Your task to perform on an android device: toggle javascript in the chrome app Image 0: 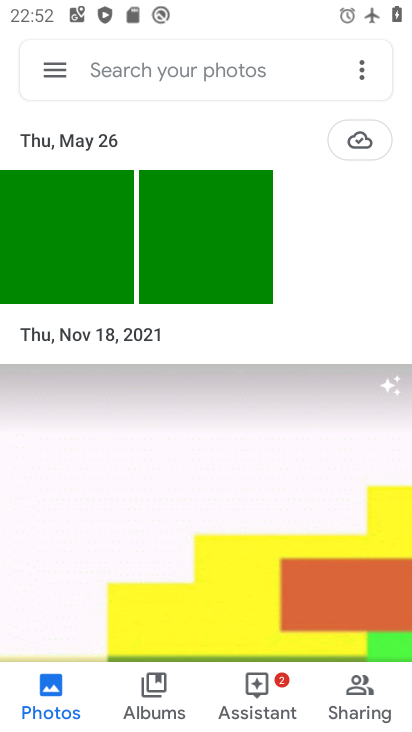
Step 0: press home button
Your task to perform on an android device: toggle javascript in the chrome app Image 1: 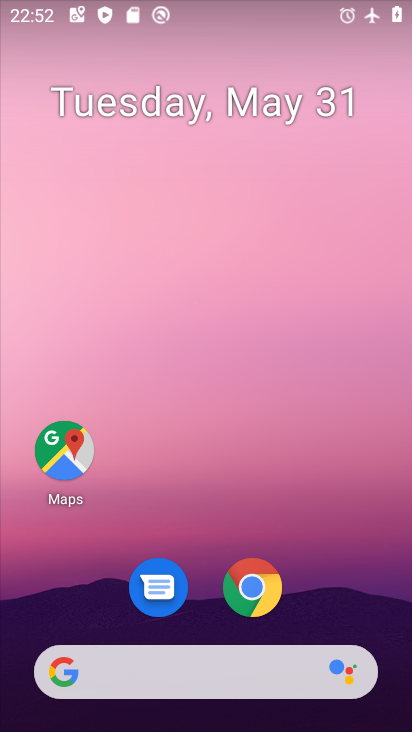
Step 1: drag from (368, 583) to (368, 173)
Your task to perform on an android device: toggle javascript in the chrome app Image 2: 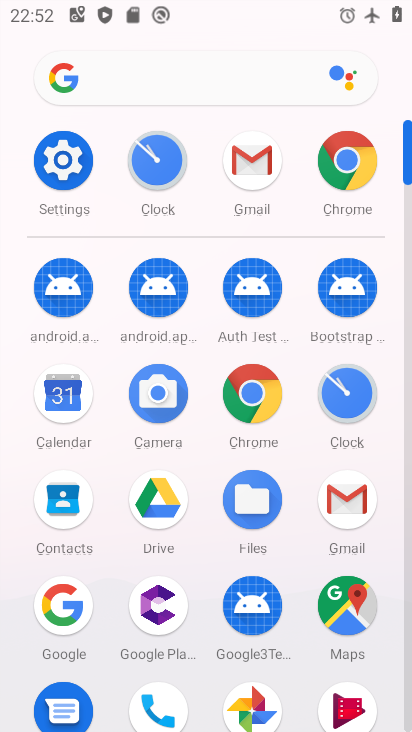
Step 2: drag from (297, 558) to (301, 233)
Your task to perform on an android device: toggle javascript in the chrome app Image 3: 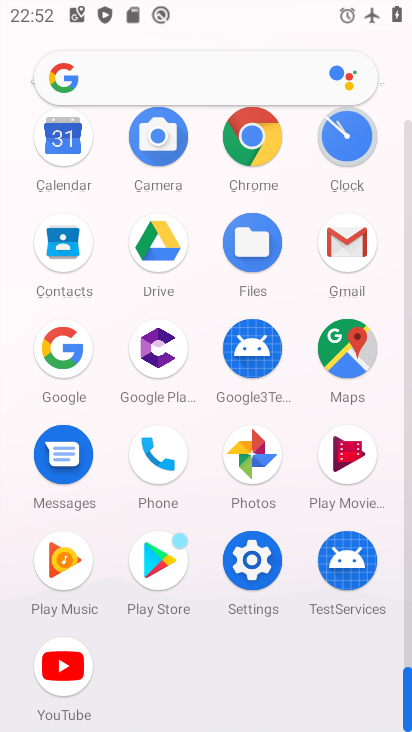
Step 3: drag from (302, 192) to (296, 426)
Your task to perform on an android device: toggle javascript in the chrome app Image 4: 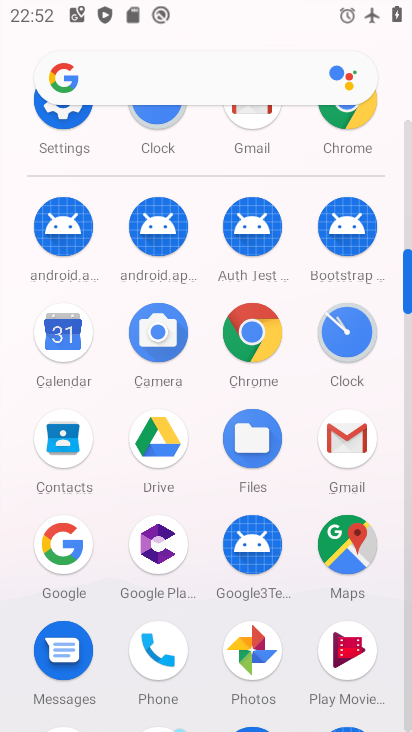
Step 4: drag from (296, 143) to (288, 350)
Your task to perform on an android device: toggle javascript in the chrome app Image 5: 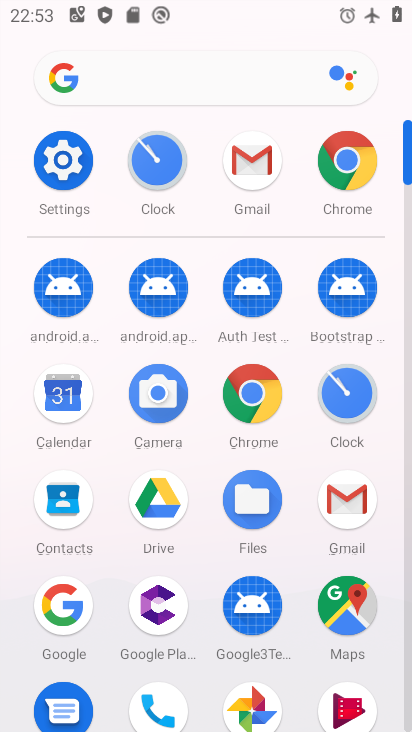
Step 5: drag from (296, 456) to (300, 245)
Your task to perform on an android device: toggle javascript in the chrome app Image 6: 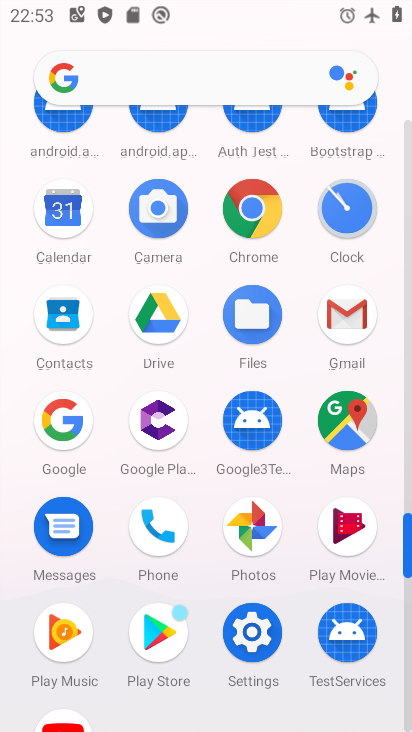
Step 6: drag from (291, 523) to (306, 323)
Your task to perform on an android device: toggle javascript in the chrome app Image 7: 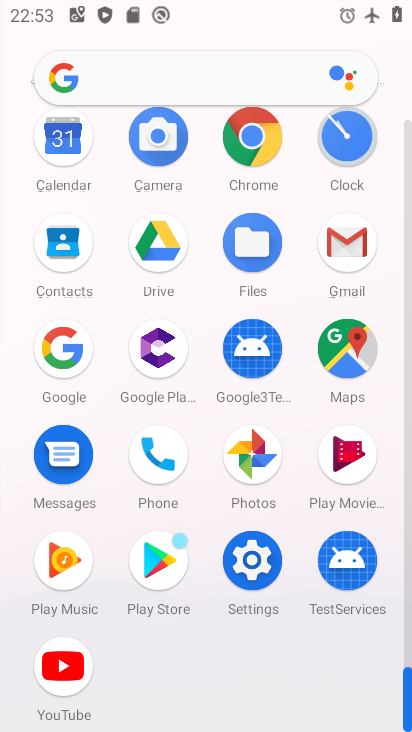
Step 7: drag from (301, 178) to (288, 350)
Your task to perform on an android device: toggle javascript in the chrome app Image 8: 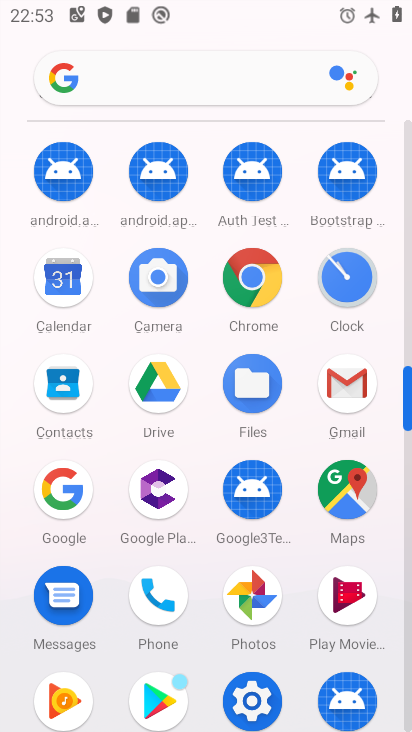
Step 8: drag from (297, 189) to (288, 383)
Your task to perform on an android device: toggle javascript in the chrome app Image 9: 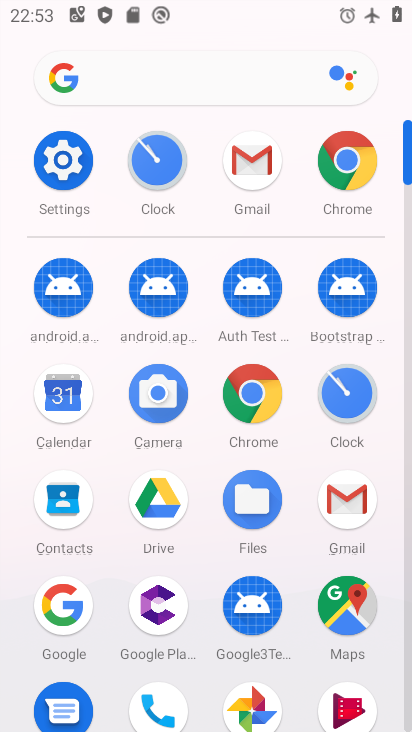
Step 9: drag from (296, 143) to (291, 307)
Your task to perform on an android device: toggle javascript in the chrome app Image 10: 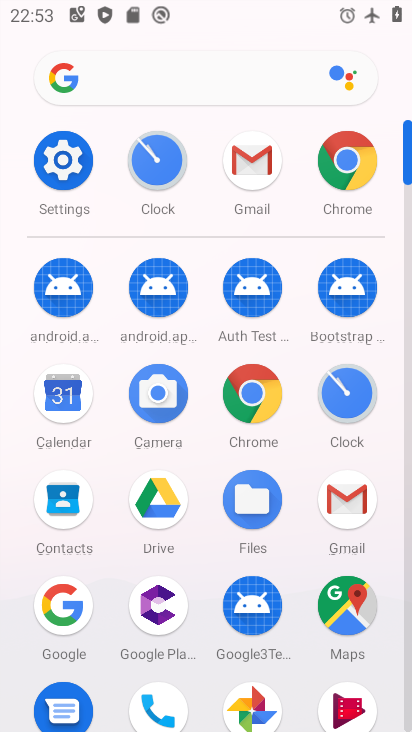
Step 10: drag from (292, 385) to (300, 194)
Your task to perform on an android device: toggle javascript in the chrome app Image 11: 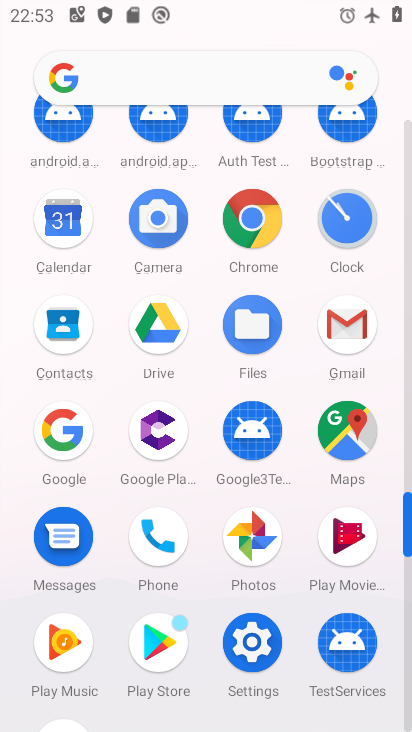
Step 11: click (256, 225)
Your task to perform on an android device: toggle javascript in the chrome app Image 12: 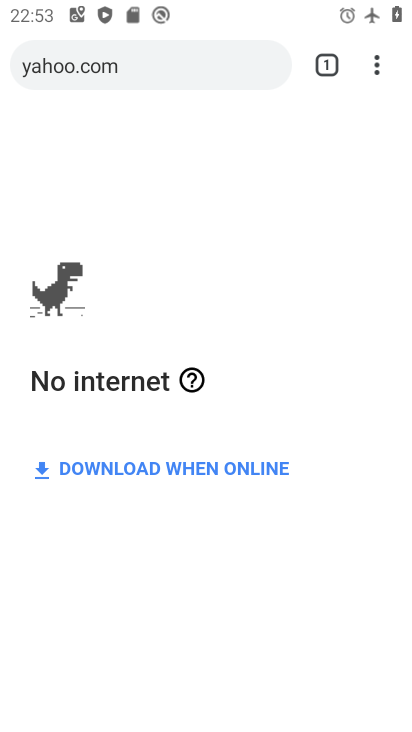
Step 12: click (379, 67)
Your task to perform on an android device: toggle javascript in the chrome app Image 13: 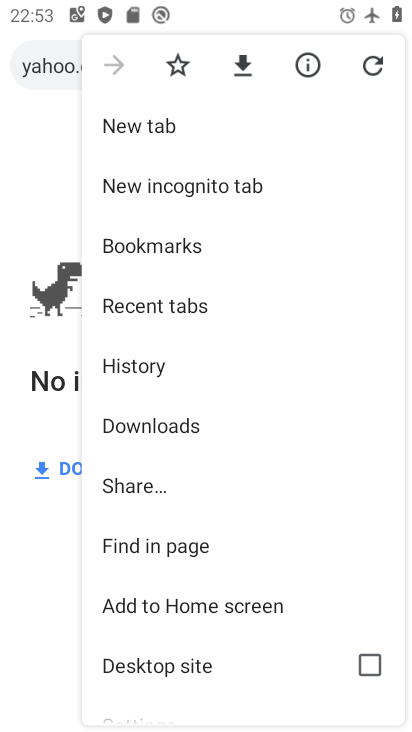
Step 13: drag from (289, 445) to (310, 272)
Your task to perform on an android device: toggle javascript in the chrome app Image 14: 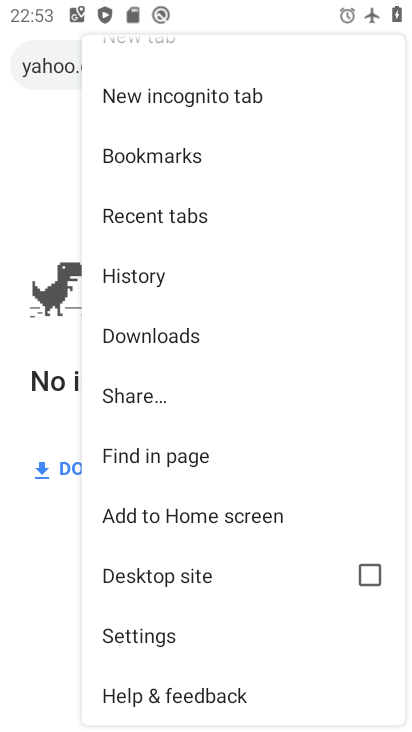
Step 14: drag from (274, 566) to (303, 333)
Your task to perform on an android device: toggle javascript in the chrome app Image 15: 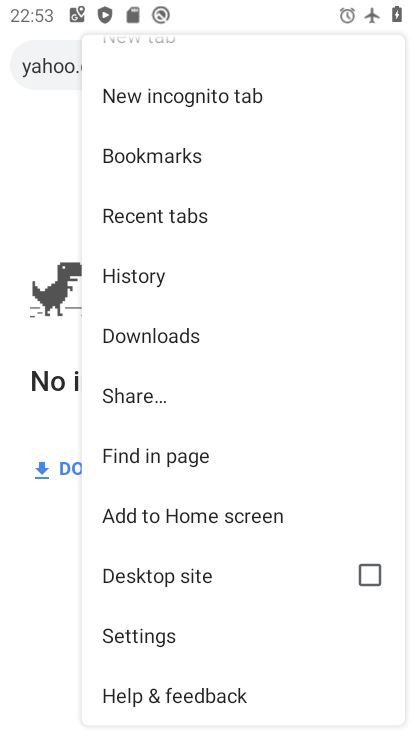
Step 15: click (162, 643)
Your task to perform on an android device: toggle javascript in the chrome app Image 16: 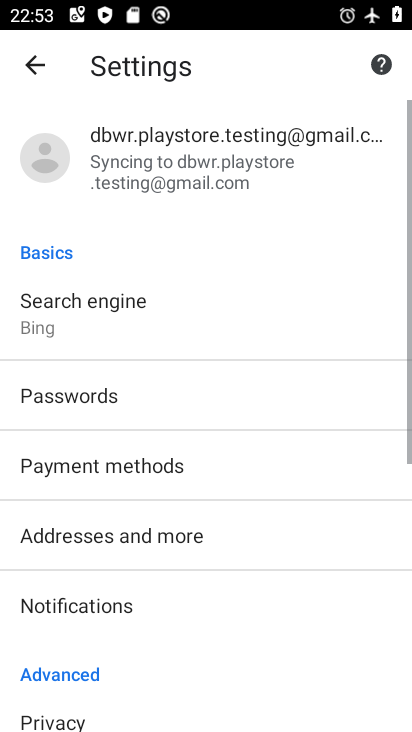
Step 16: drag from (317, 513) to (337, 372)
Your task to perform on an android device: toggle javascript in the chrome app Image 17: 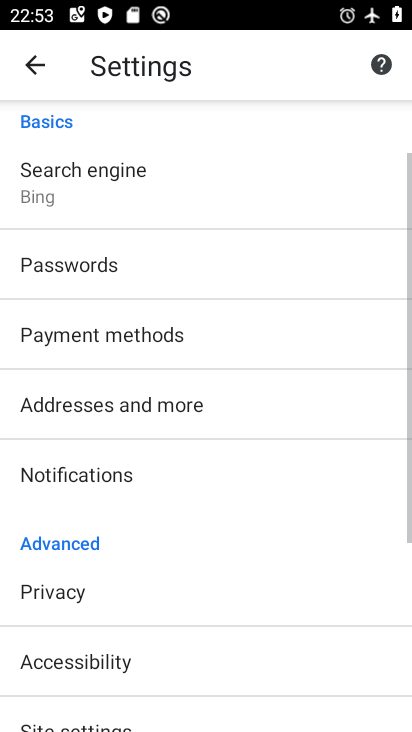
Step 17: drag from (315, 569) to (335, 351)
Your task to perform on an android device: toggle javascript in the chrome app Image 18: 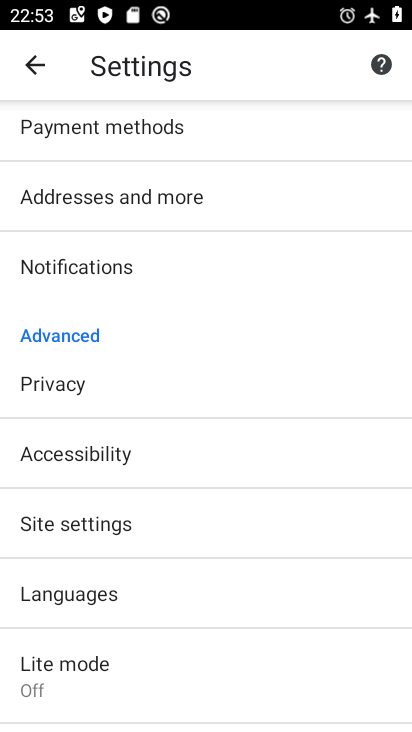
Step 18: drag from (292, 588) to (294, 401)
Your task to perform on an android device: toggle javascript in the chrome app Image 19: 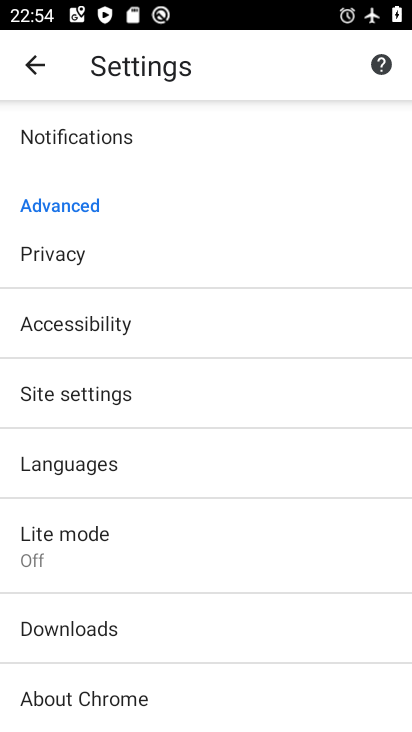
Step 19: drag from (303, 547) to (301, 383)
Your task to perform on an android device: toggle javascript in the chrome app Image 20: 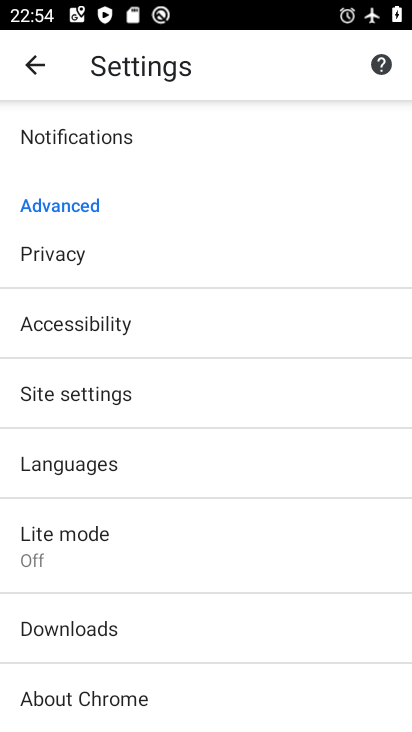
Step 20: drag from (301, 269) to (286, 483)
Your task to perform on an android device: toggle javascript in the chrome app Image 21: 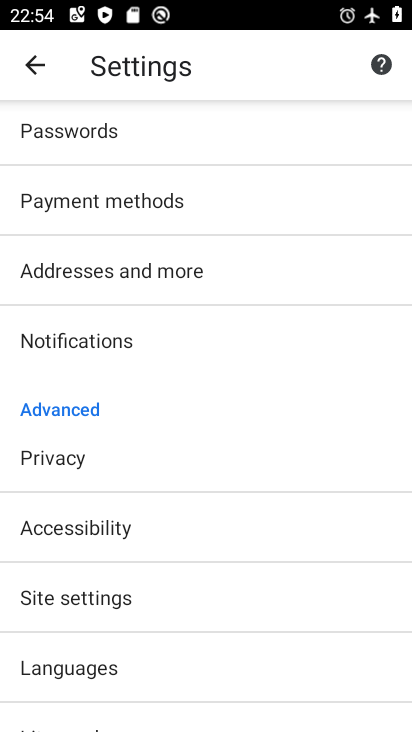
Step 21: drag from (302, 542) to (306, 303)
Your task to perform on an android device: toggle javascript in the chrome app Image 22: 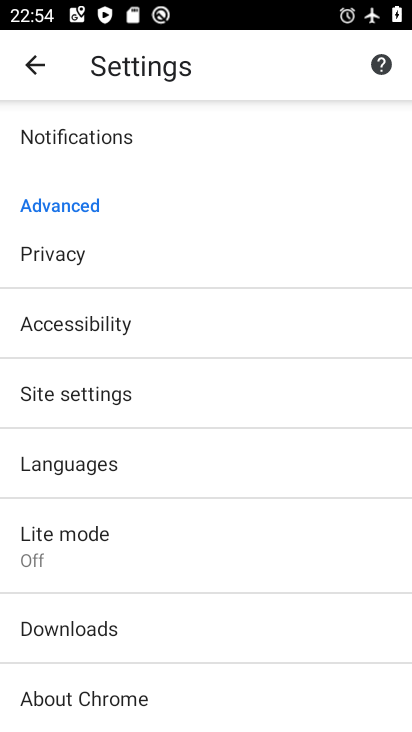
Step 22: click (176, 390)
Your task to perform on an android device: toggle javascript in the chrome app Image 23: 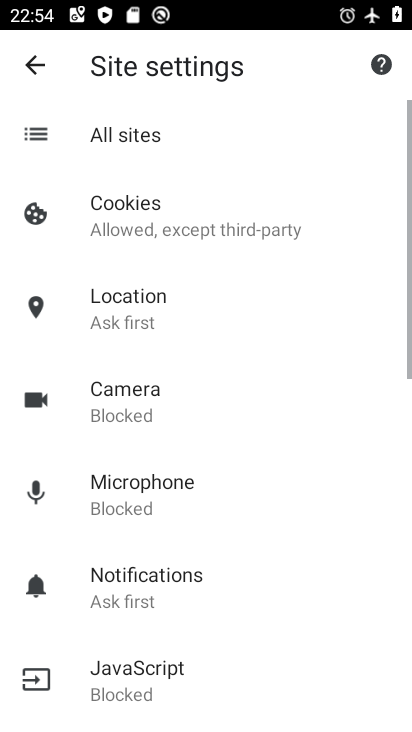
Step 23: drag from (257, 550) to (292, 331)
Your task to perform on an android device: toggle javascript in the chrome app Image 24: 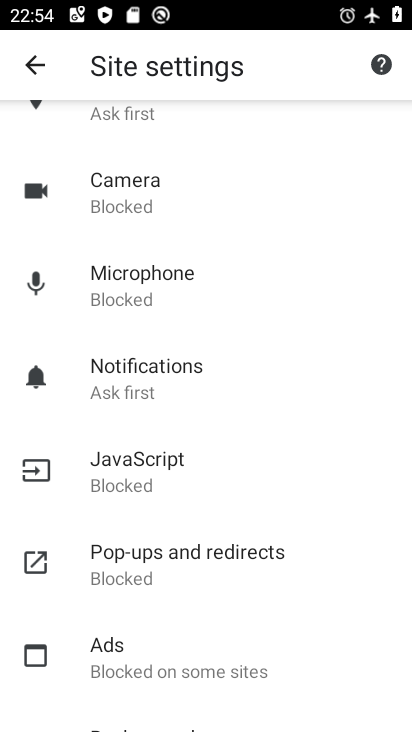
Step 24: drag from (297, 628) to (313, 398)
Your task to perform on an android device: toggle javascript in the chrome app Image 25: 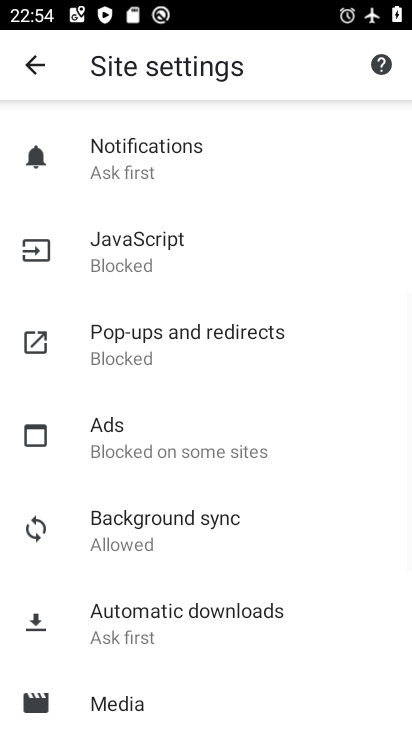
Step 25: drag from (318, 621) to (322, 358)
Your task to perform on an android device: toggle javascript in the chrome app Image 26: 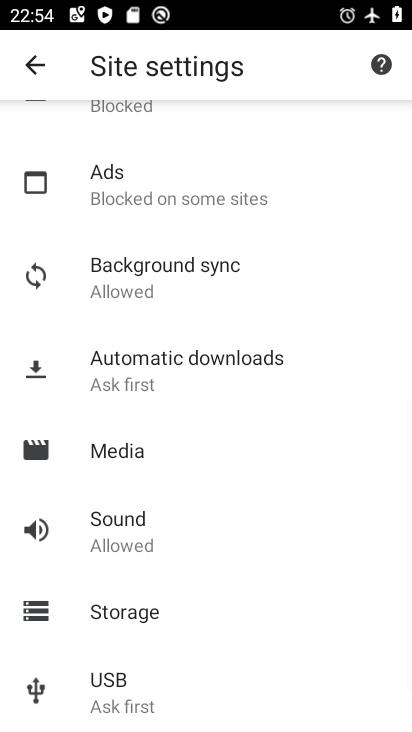
Step 26: drag from (318, 245) to (318, 448)
Your task to perform on an android device: toggle javascript in the chrome app Image 27: 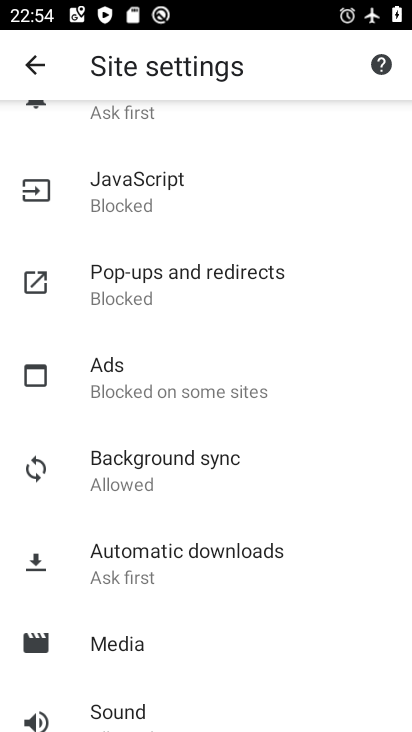
Step 27: drag from (325, 253) to (319, 460)
Your task to perform on an android device: toggle javascript in the chrome app Image 28: 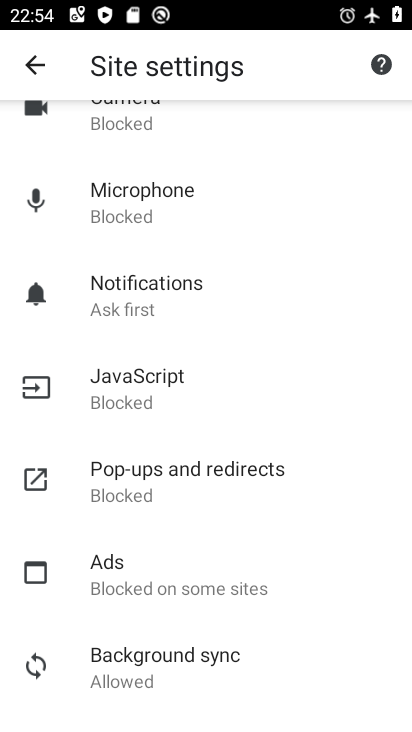
Step 28: drag from (324, 236) to (337, 389)
Your task to perform on an android device: toggle javascript in the chrome app Image 29: 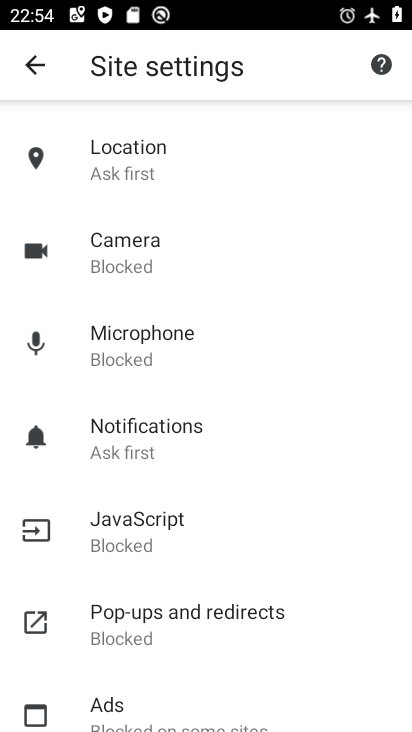
Step 29: click (160, 546)
Your task to perform on an android device: toggle javascript in the chrome app Image 30: 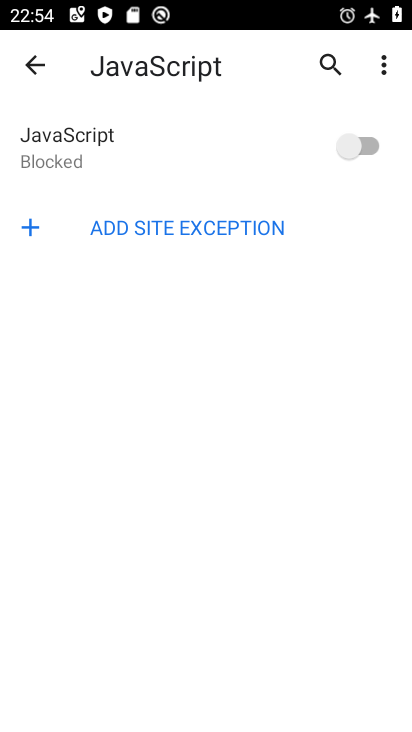
Step 30: click (346, 137)
Your task to perform on an android device: toggle javascript in the chrome app Image 31: 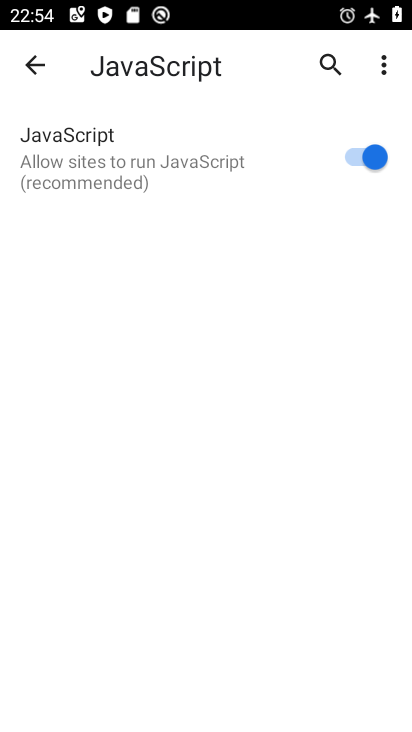
Step 31: task complete